Your task to perform on an android device: Go to ESPN.com Image 0: 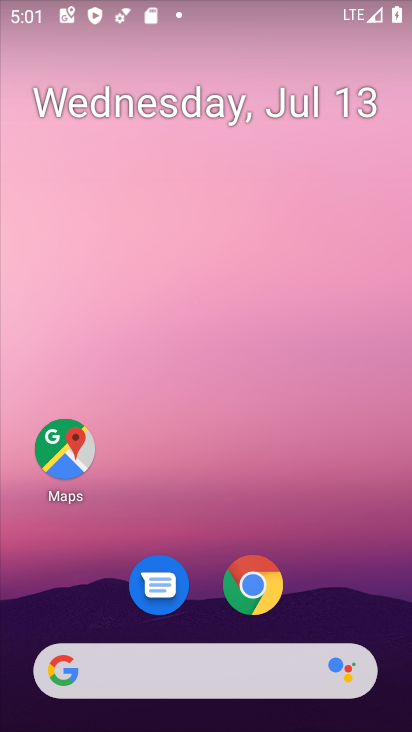
Step 0: click (268, 671)
Your task to perform on an android device: Go to ESPN.com Image 1: 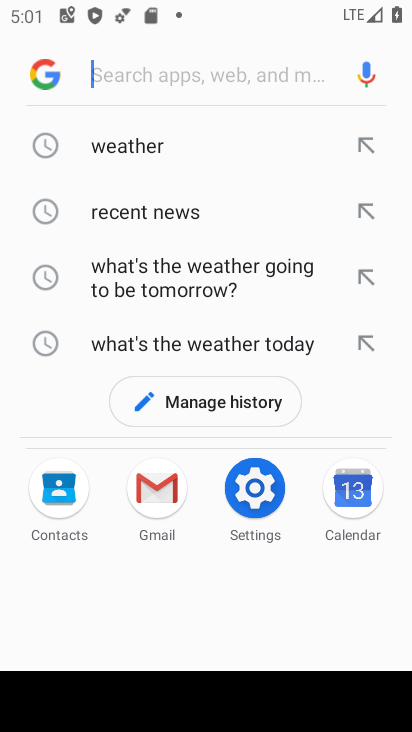
Step 1: type "espn.com"
Your task to perform on an android device: Go to ESPN.com Image 2: 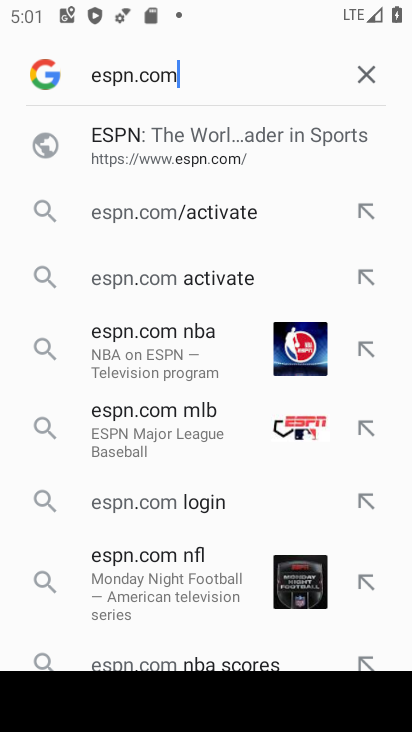
Step 2: click (236, 138)
Your task to perform on an android device: Go to ESPN.com Image 3: 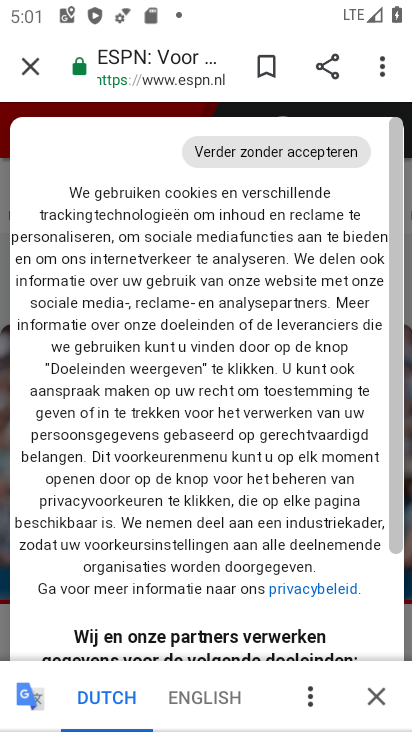
Step 3: click (222, 693)
Your task to perform on an android device: Go to ESPN.com Image 4: 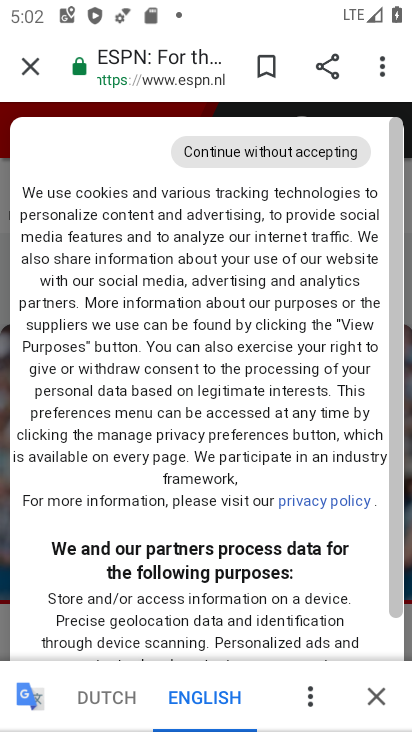
Step 4: click (378, 696)
Your task to perform on an android device: Go to ESPN.com Image 5: 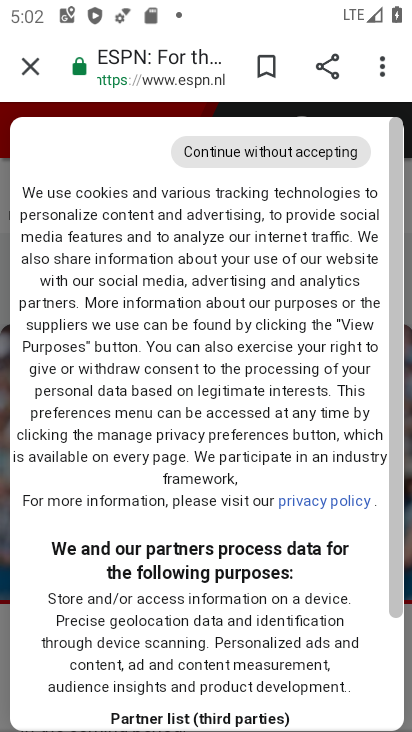
Step 5: drag from (220, 591) to (282, 245)
Your task to perform on an android device: Go to ESPN.com Image 6: 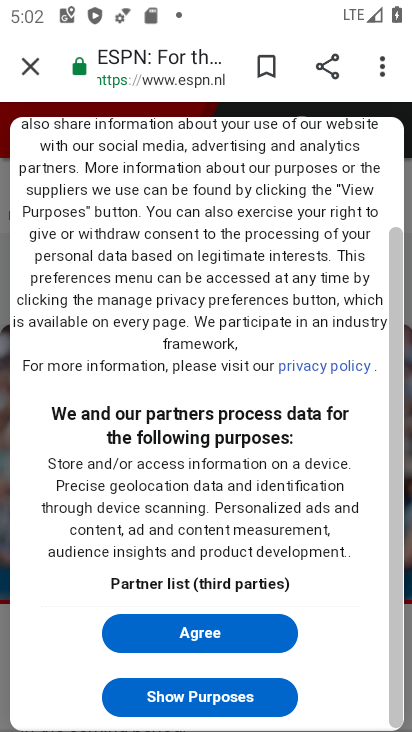
Step 6: click (251, 640)
Your task to perform on an android device: Go to ESPN.com Image 7: 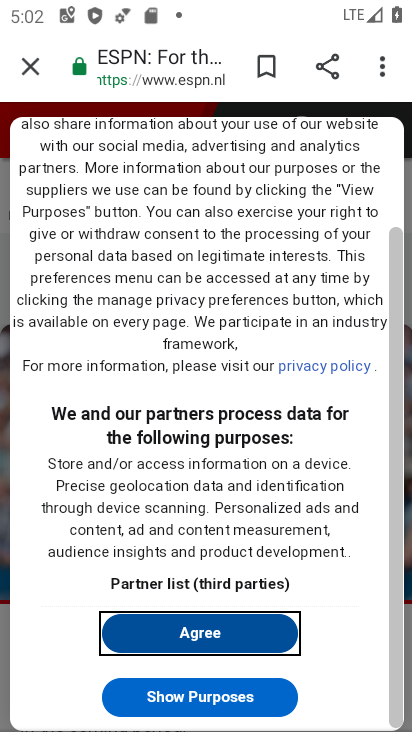
Step 7: click (275, 622)
Your task to perform on an android device: Go to ESPN.com Image 8: 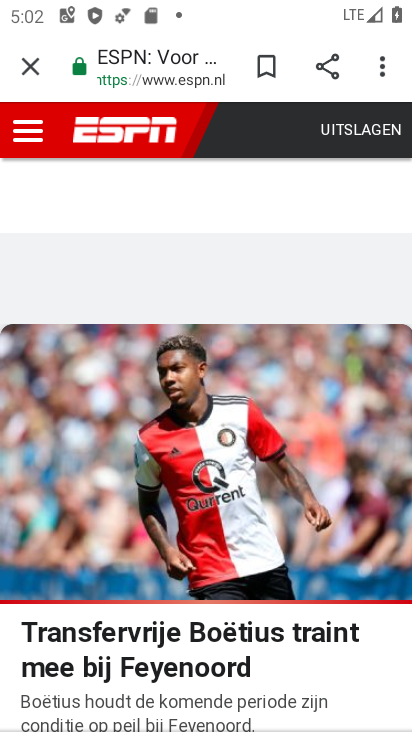
Step 8: task complete